Your task to perform on an android device: visit the assistant section in the google photos Image 0: 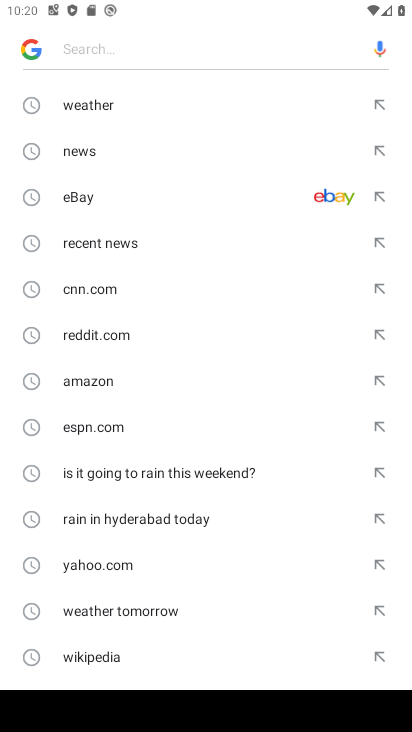
Step 0: press home button
Your task to perform on an android device: visit the assistant section in the google photos Image 1: 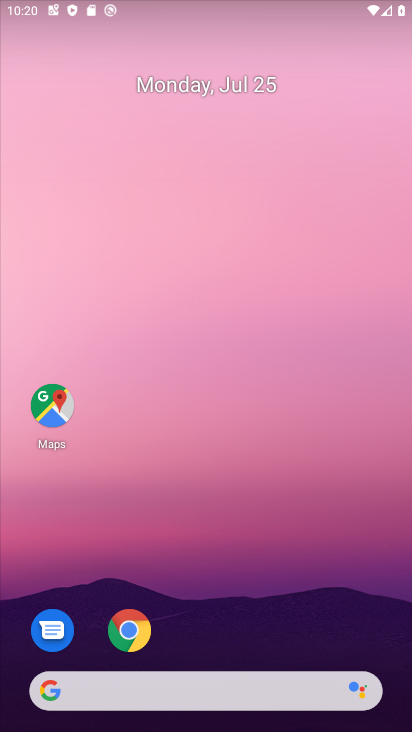
Step 1: drag from (363, 615) to (257, 40)
Your task to perform on an android device: visit the assistant section in the google photos Image 2: 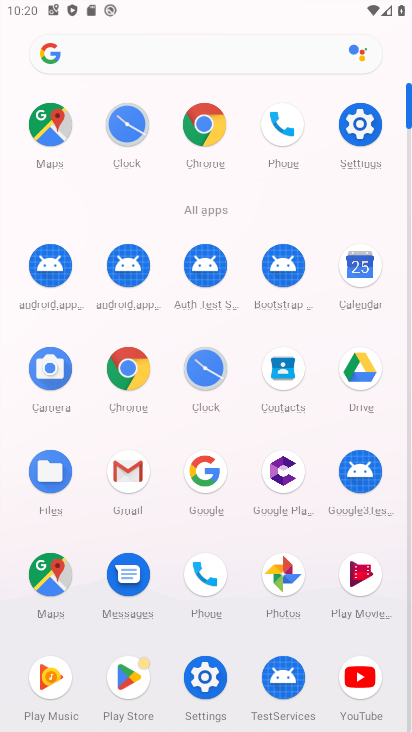
Step 2: click (289, 565)
Your task to perform on an android device: visit the assistant section in the google photos Image 3: 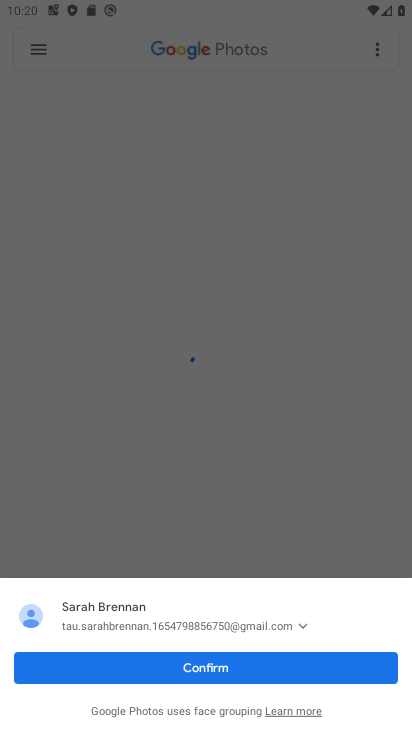
Step 3: click (285, 699)
Your task to perform on an android device: visit the assistant section in the google photos Image 4: 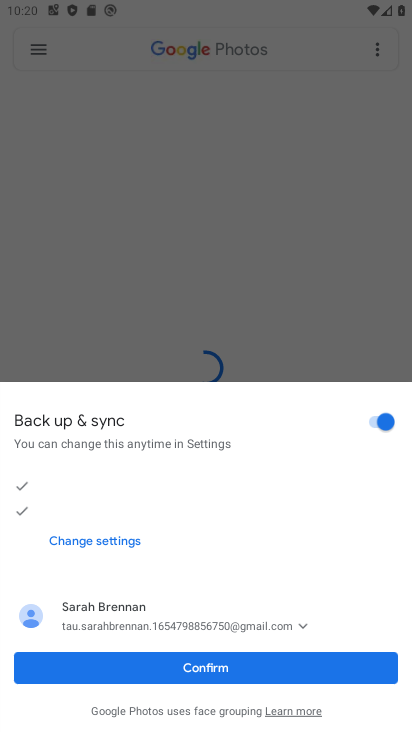
Step 4: click (275, 697)
Your task to perform on an android device: visit the assistant section in the google photos Image 5: 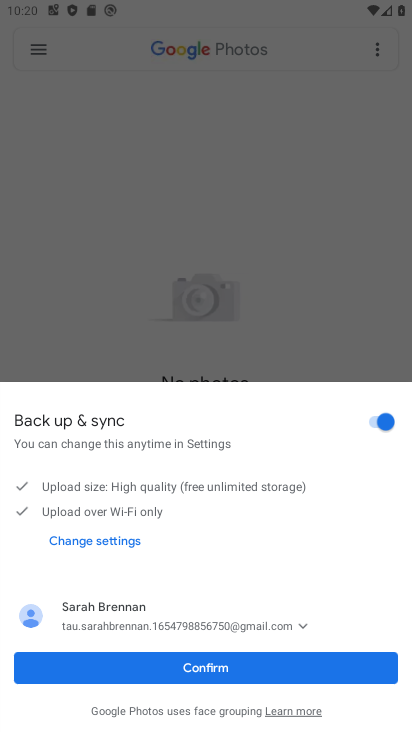
Step 5: click (259, 676)
Your task to perform on an android device: visit the assistant section in the google photos Image 6: 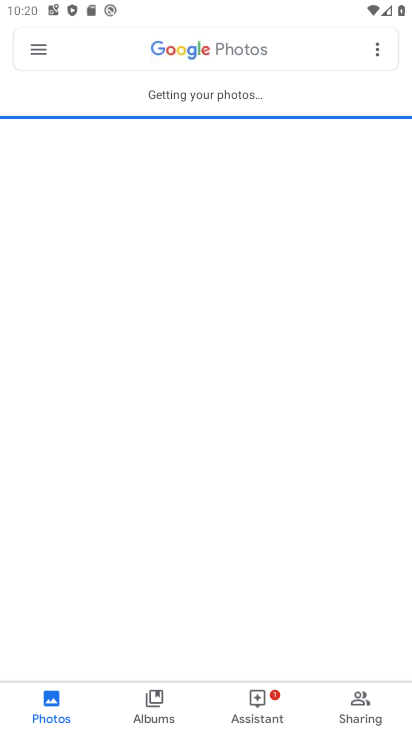
Step 6: click (245, 698)
Your task to perform on an android device: visit the assistant section in the google photos Image 7: 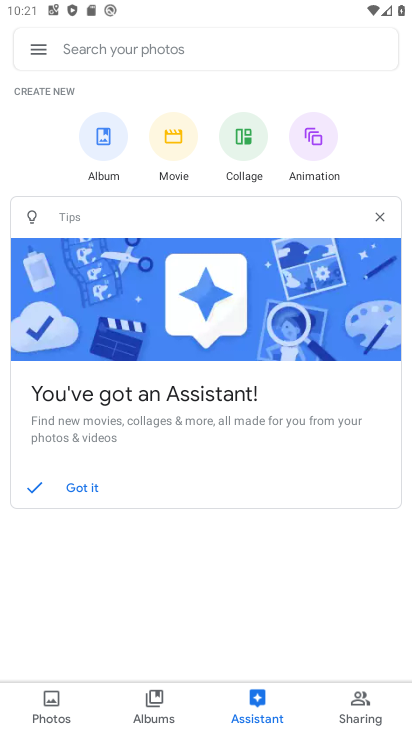
Step 7: task complete